Your task to perform on an android device: read, delete, or share a saved page in the chrome app Image 0: 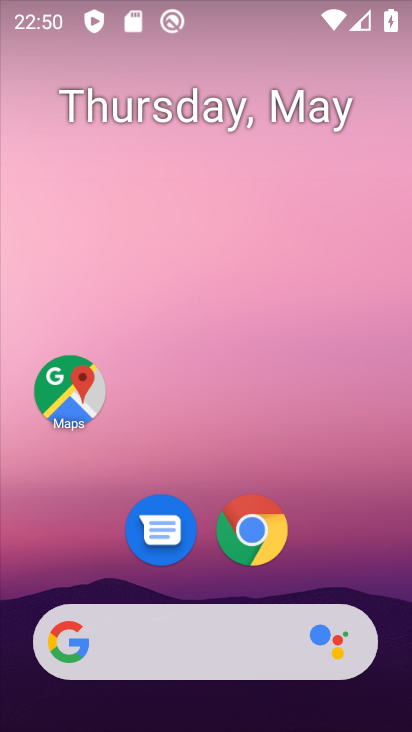
Step 0: click (254, 529)
Your task to perform on an android device: read, delete, or share a saved page in the chrome app Image 1: 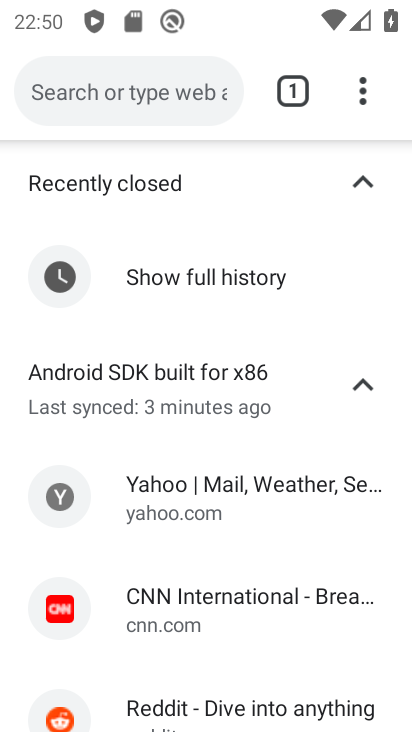
Step 1: click (363, 100)
Your task to perform on an android device: read, delete, or share a saved page in the chrome app Image 2: 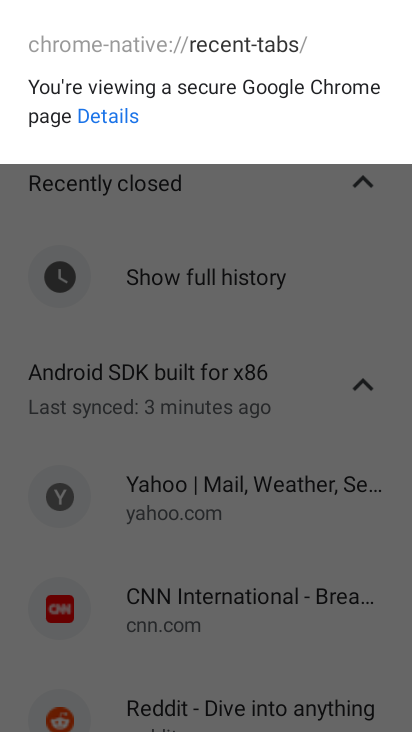
Step 2: click (262, 210)
Your task to perform on an android device: read, delete, or share a saved page in the chrome app Image 3: 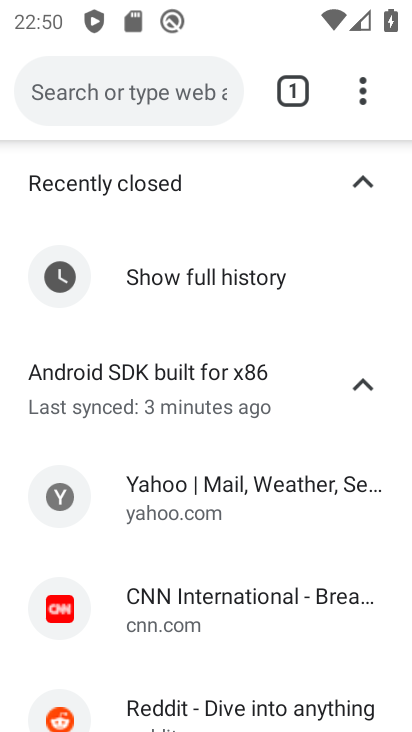
Step 3: click (368, 93)
Your task to perform on an android device: read, delete, or share a saved page in the chrome app Image 4: 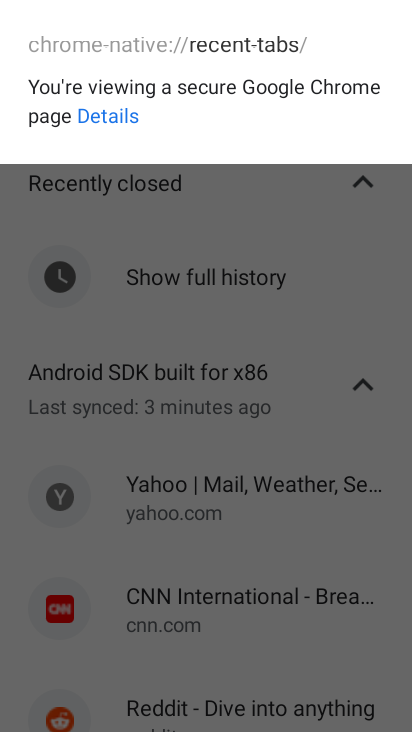
Step 4: click (275, 213)
Your task to perform on an android device: read, delete, or share a saved page in the chrome app Image 5: 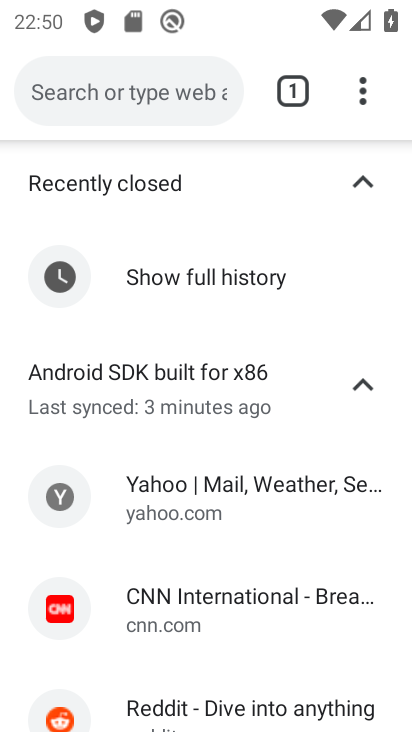
Step 5: click (404, 92)
Your task to perform on an android device: read, delete, or share a saved page in the chrome app Image 6: 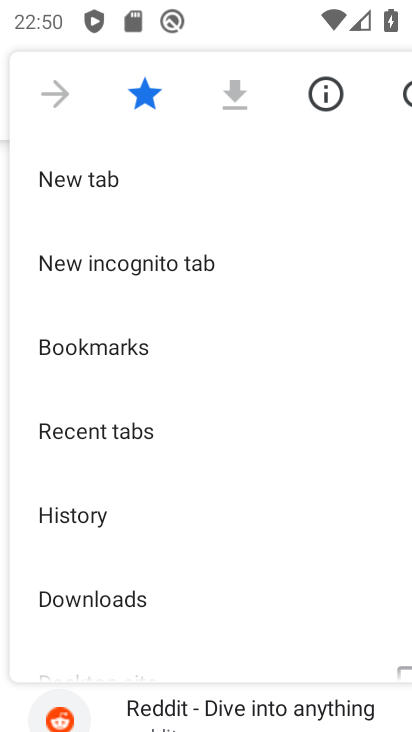
Step 6: drag from (258, 395) to (317, 317)
Your task to perform on an android device: read, delete, or share a saved page in the chrome app Image 7: 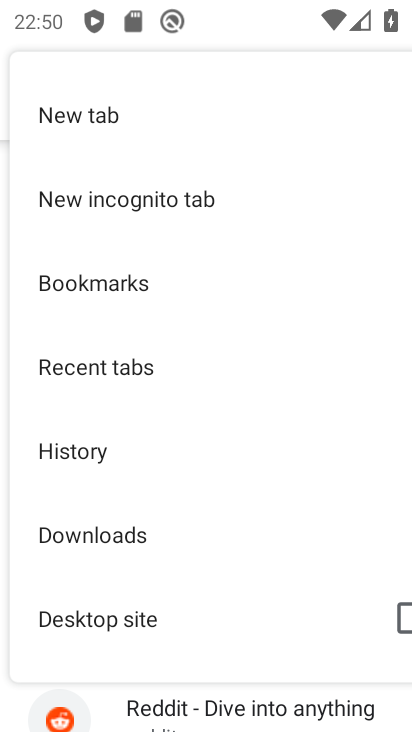
Step 7: drag from (263, 445) to (324, 319)
Your task to perform on an android device: read, delete, or share a saved page in the chrome app Image 8: 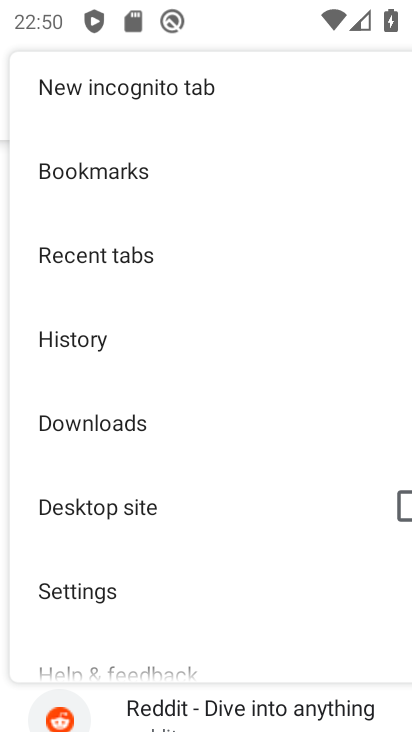
Step 8: drag from (242, 467) to (262, 404)
Your task to perform on an android device: read, delete, or share a saved page in the chrome app Image 9: 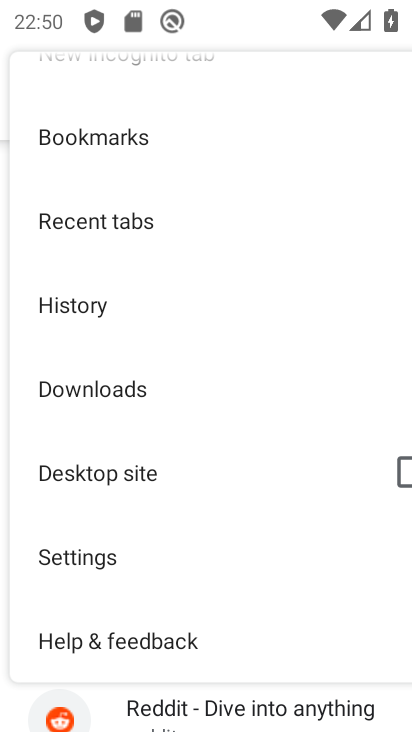
Step 9: click (158, 387)
Your task to perform on an android device: read, delete, or share a saved page in the chrome app Image 10: 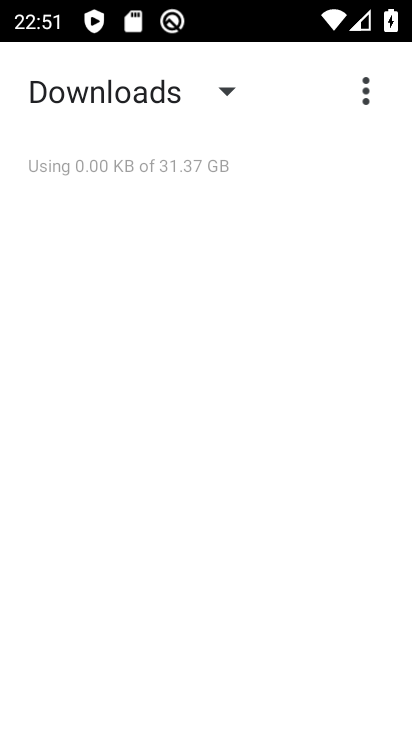
Step 10: drag from (195, 479) to (218, 347)
Your task to perform on an android device: read, delete, or share a saved page in the chrome app Image 11: 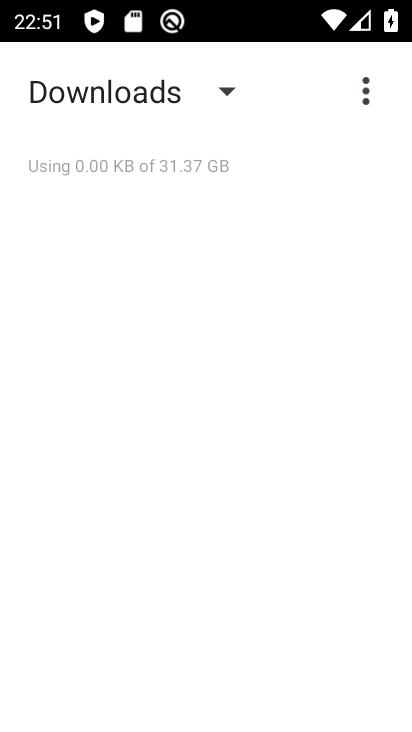
Step 11: click (225, 88)
Your task to perform on an android device: read, delete, or share a saved page in the chrome app Image 12: 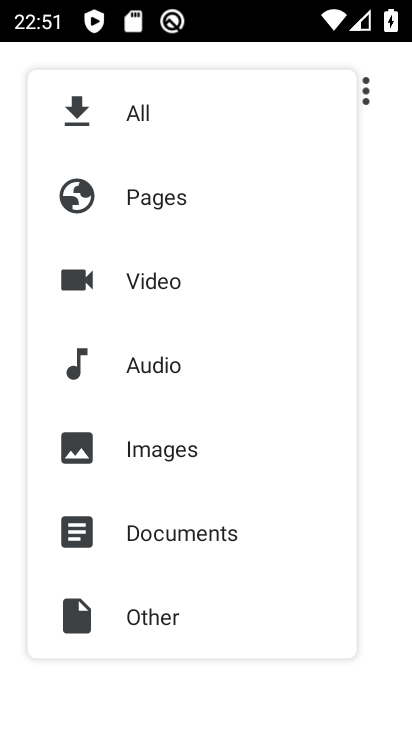
Step 12: click (187, 198)
Your task to perform on an android device: read, delete, or share a saved page in the chrome app Image 13: 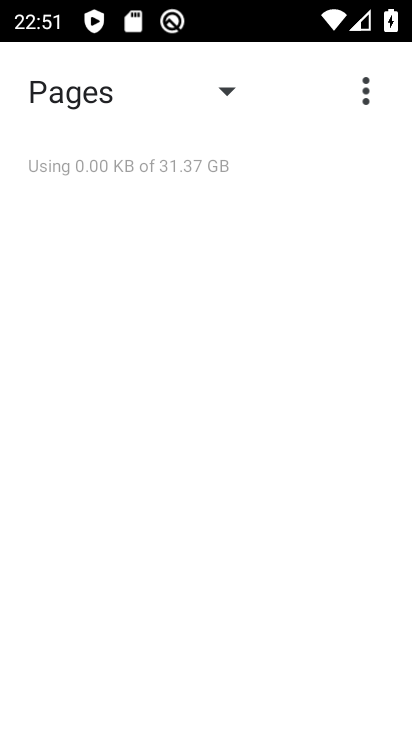
Step 13: click (223, 92)
Your task to perform on an android device: read, delete, or share a saved page in the chrome app Image 14: 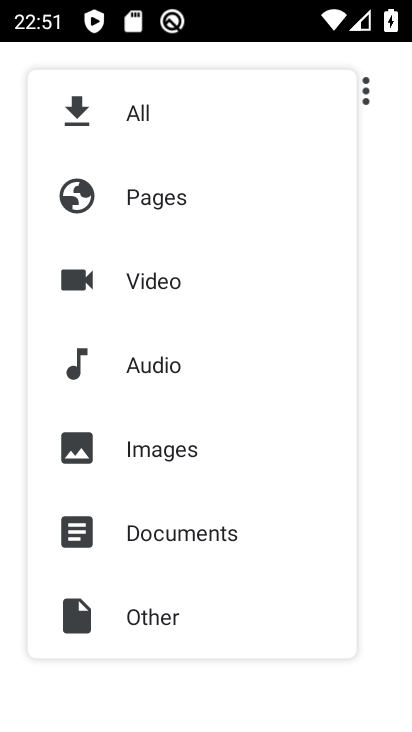
Step 14: click (165, 116)
Your task to perform on an android device: read, delete, or share a saved page in the chrome app Image 15: 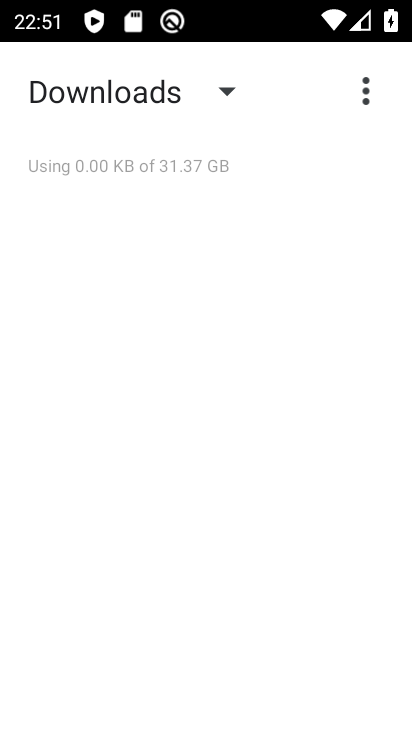
Step 15: task complete